Your task to perform on an android device: find which apps use the phone's location Image 0: 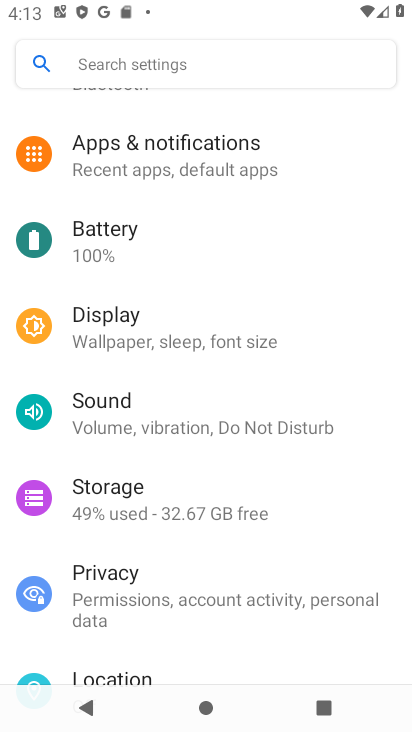
Step 0: drag from (191, 623) to (234, 195)
Your task to perform on an android device: find which apps use the phone's location Image 1: 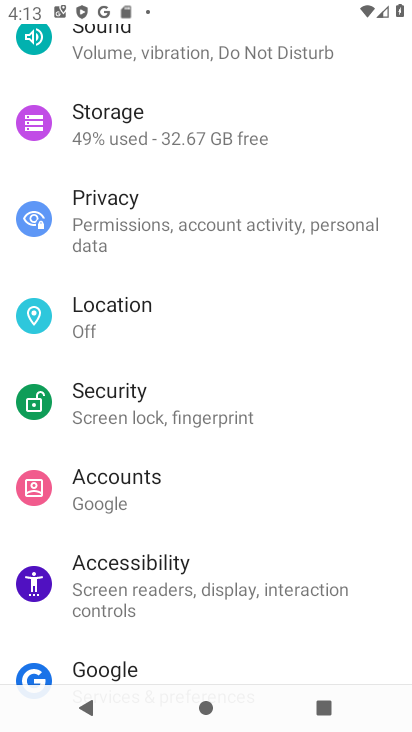
Step 1: click (133, 311)
Your task to perform on an android device: find which apps use the phone's location Image 2: 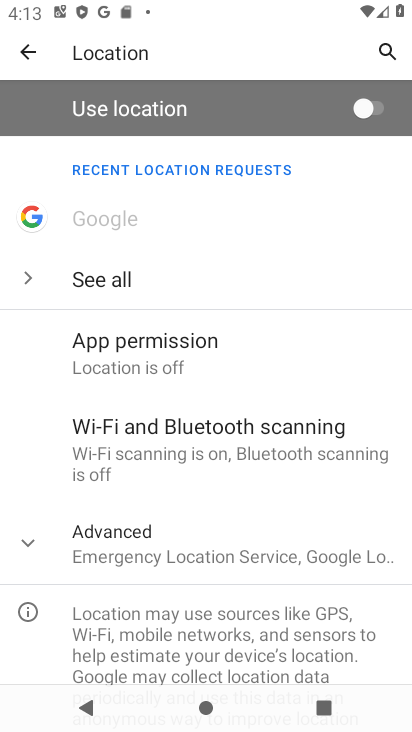
Step 2: click (161, 354)
Your task to perform on an android device: find which apps use the phone's location Image 3: 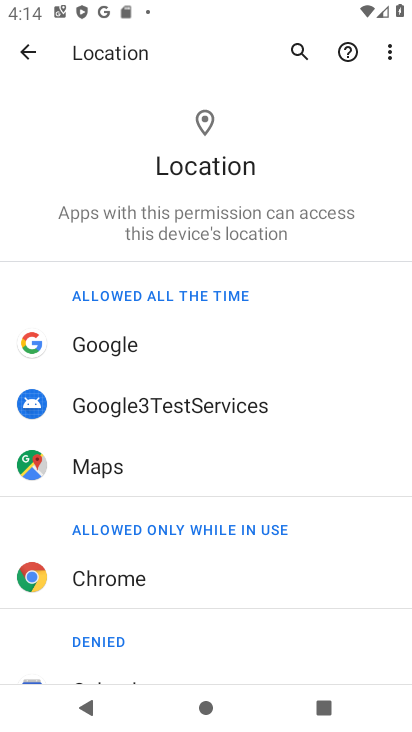
Step 3: task complete